Your task to perform on an android device: Open accessibility settings Image 0: 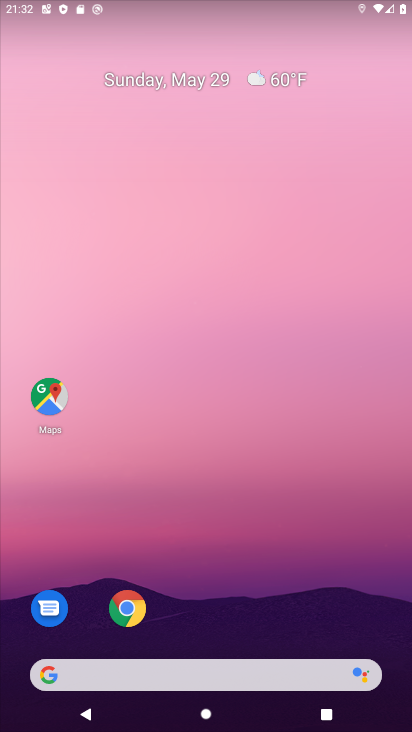
Step 0: drag from (381, 637) to (366, 257)
Your task to perform on an android device: Open accessibility settings Image 1: 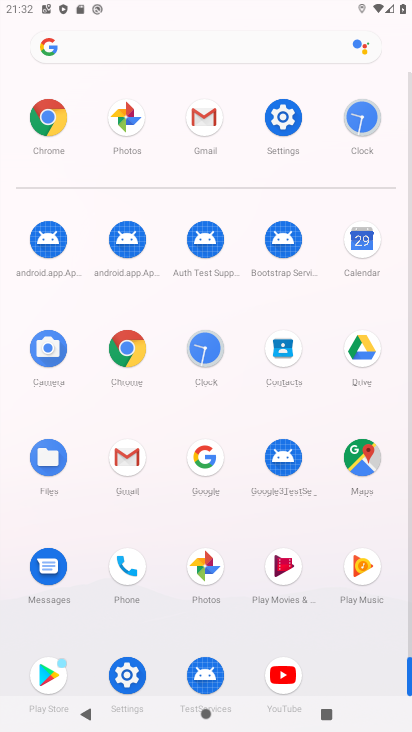
Step 1: click (281, 125)
Your task to perform on an android device: Open accessibility settings Image 2: 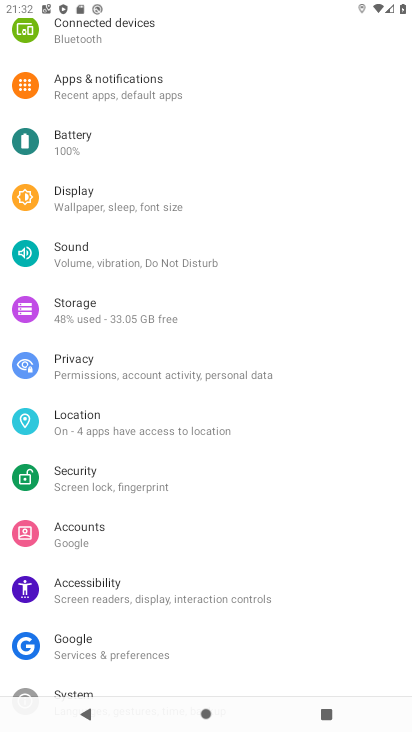
Step 2: drag from (281, 125) to (281, 202)
Your task to perform on an android device: Open accessibility settings Image 3: 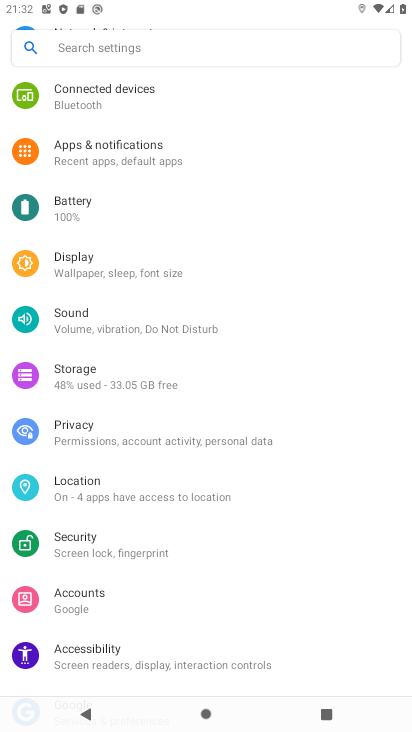
Step 3: drag from (291, 118) to (277, 195)
Your task to perform on an android device: Open accessibility settings Image 4: 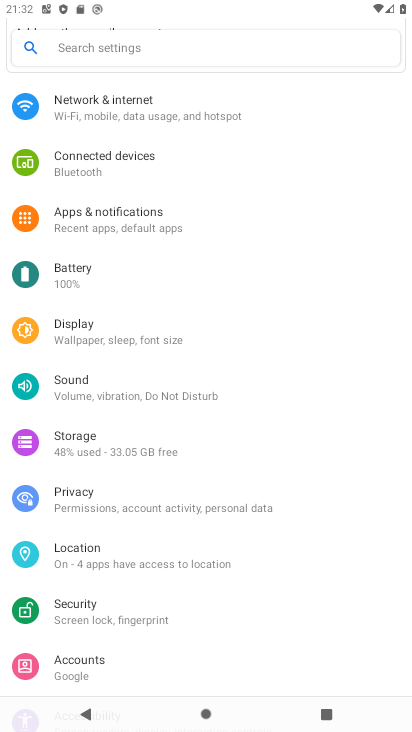
Step 4: drag from (284, 103) to (280, 195)
Your task to perform on an android device: Open accessibility settings Image 5: 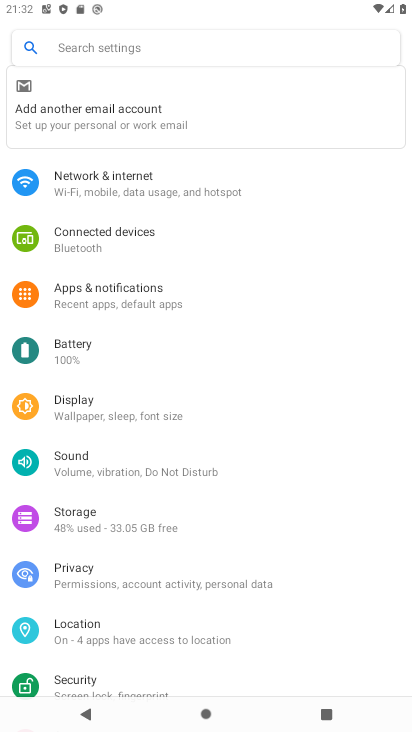
Step 5: drag from (287, 106) to (292, 254)
Your task to perform on an android device: Open accessibility settings Image 6: 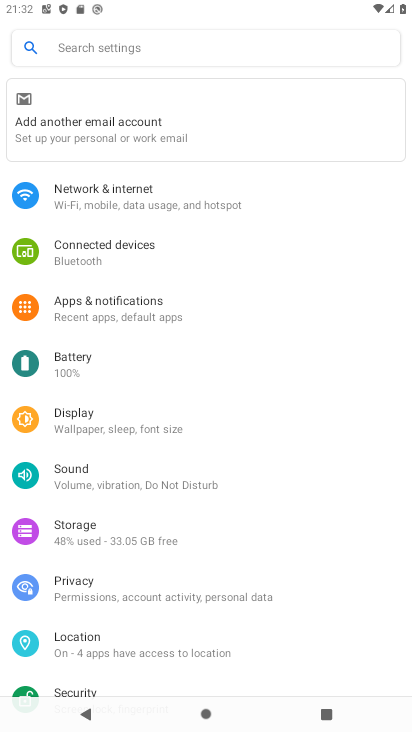
Step 6: drag from (299, 361) to (311, 281)
Your task to perform on an android device: Open accessibility settings Image 7: 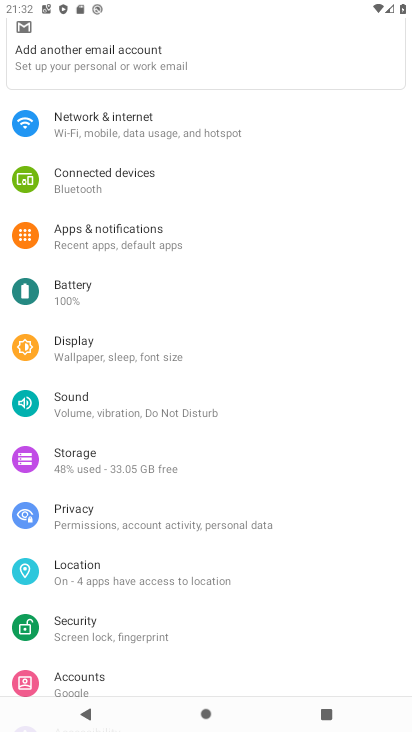
Step 7: drag from (303, 367) to (305, 282)
Your task to perform on an android device: Open accessibility settings Image 8: 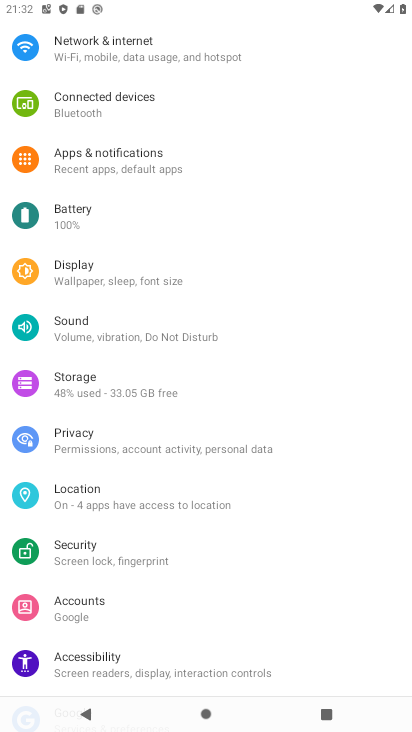
Step 8: drag from (313, 366) to (315, 279)
Your task to perform on an android device: Open accessibility settings Image 9: 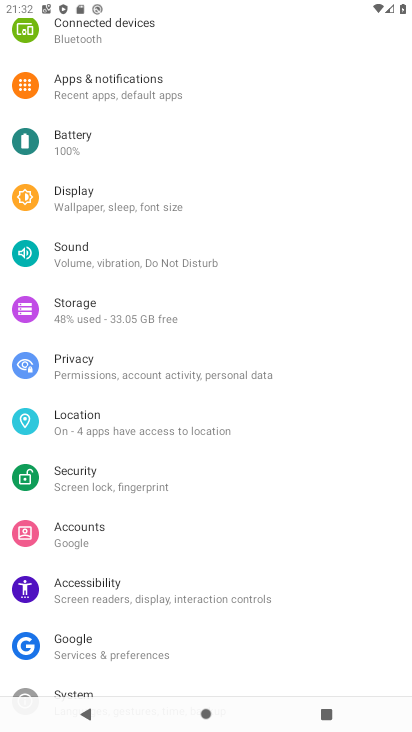
Step 9: drag from (328, 423) to (335, 283)
Your task to perform on an android device: Open accessibility settings Image 10: 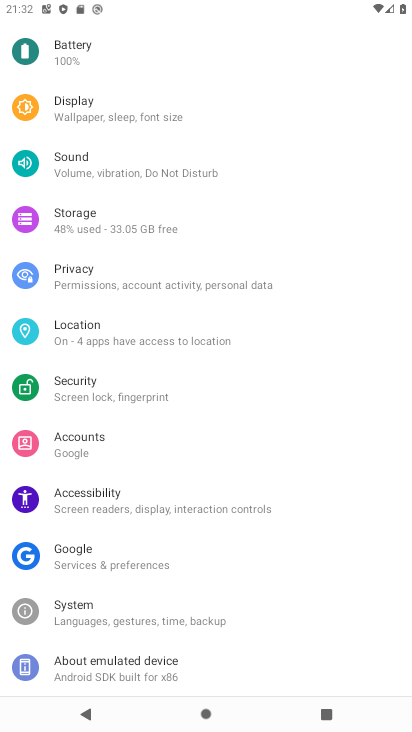
Step 10: drag from (331, 421) to (337, 304)
Your task to perform on an android device: Open accessibility settings Image 11: 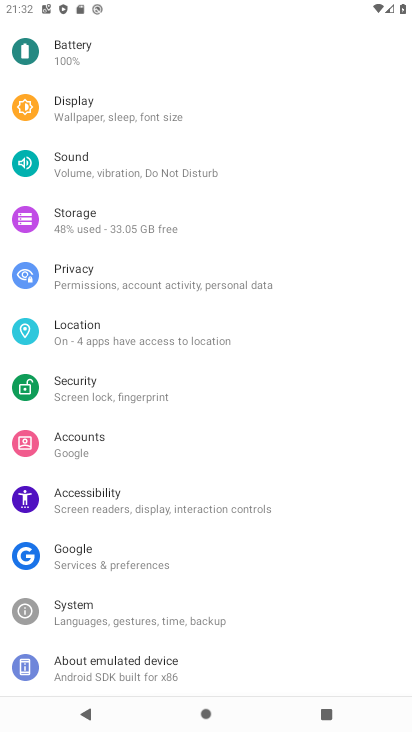
Step 11: click (258, 513)
Your task to perform on an android device: Open accessibility settings Image 12: 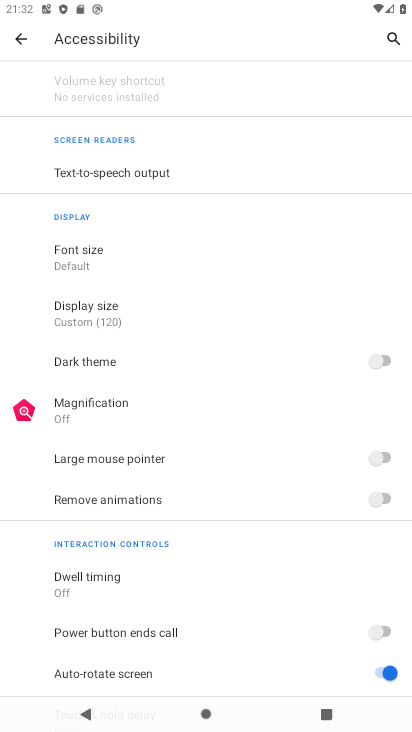
Step 12: task complete